Your task to perform on an android device: What's the weather today? Image 0: 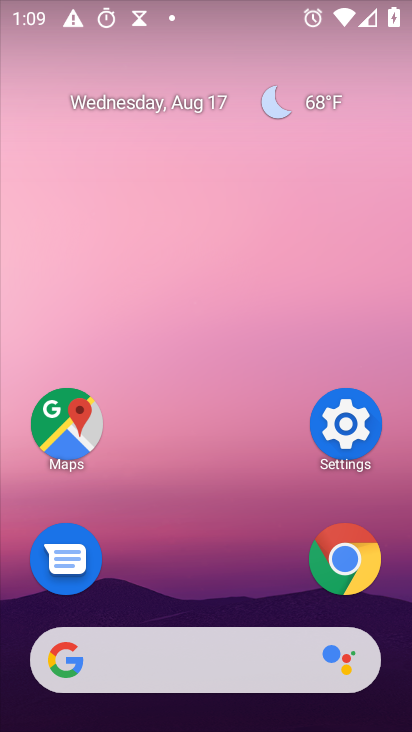
Step 0: click (146, 650)
Your task to perform on an android device: What's the weather today? Image 1: 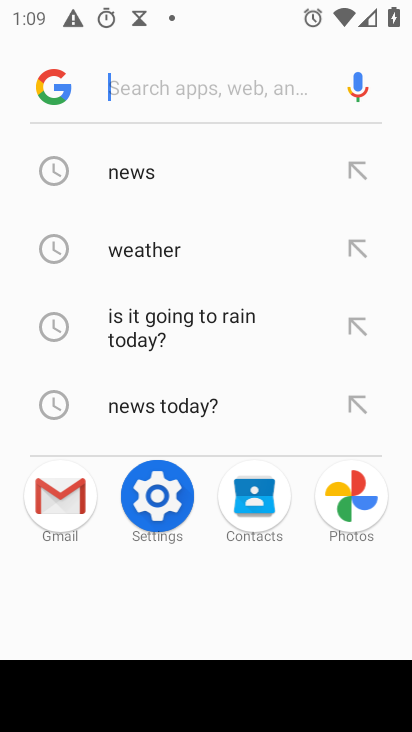
Step 1: click (126, 250)
Your task to perform on an android device: What's the weather today? Image 2: 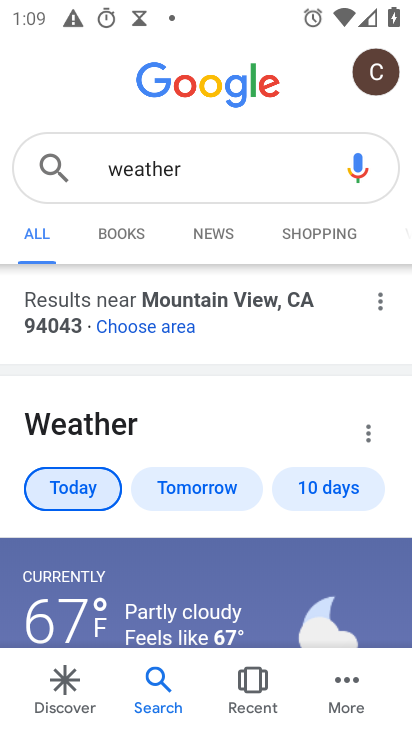
Step 2: task complete